Your task to perform on an android device: Open calendar and show me the fourth week of next month Image 0: 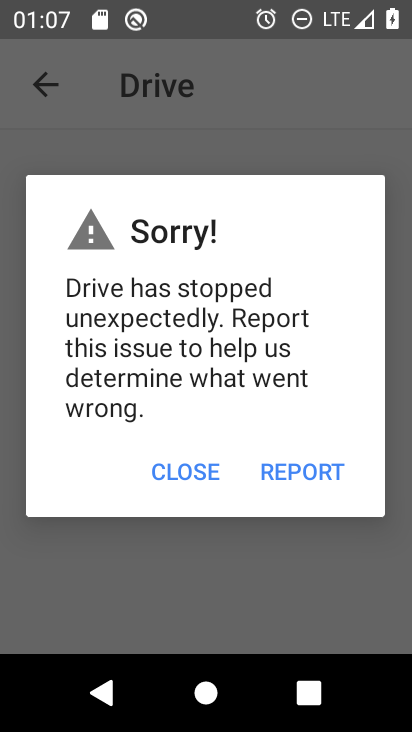
Step 0: press home button
Your task to perform on an android device: Open calendar and show me the fourth week of next month Image 1: 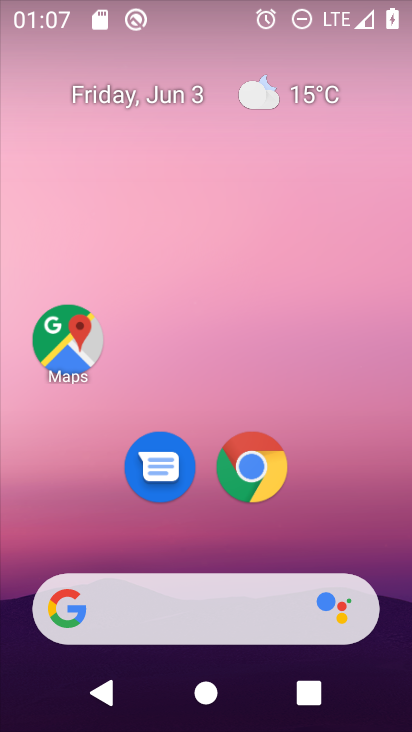
Step 1: drag from (398, 612) to (328, 40)
Your task to perform on an android device: Open calendar and show me the fourth week of next month Image 2: 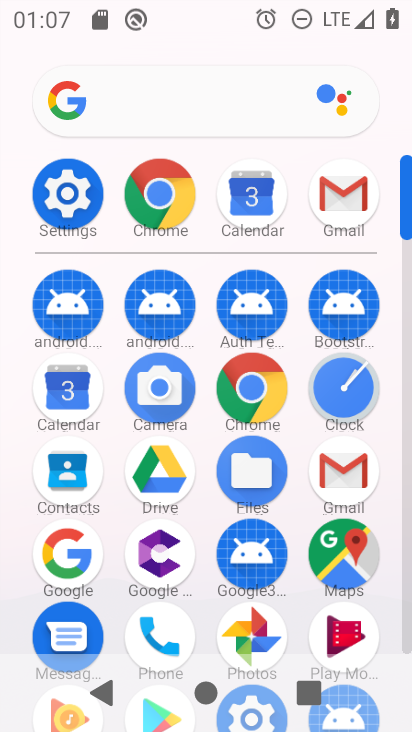
Step 2: click (404, 627)
Your task to perform on an android device: Open calendar and show me the fourth week of next month Image 3: 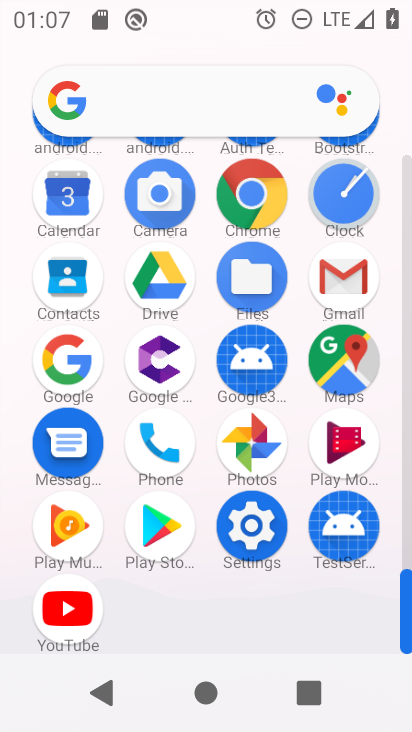
Step 3: click (67, 197)
Your task to perform on an android device: Open calendar and show me the fourth week of next month Image 4: 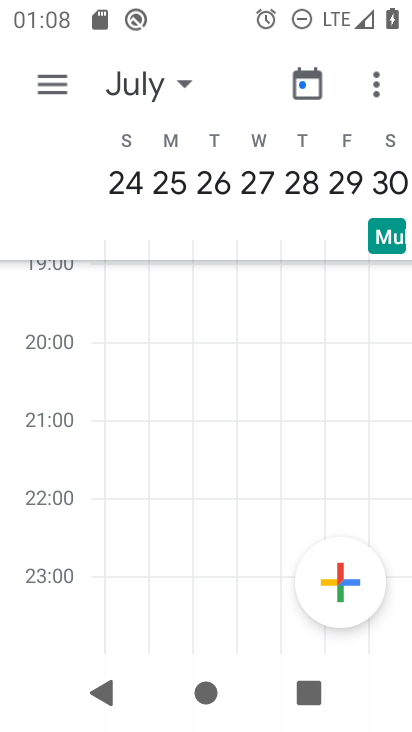
Step 4: click (187, 84)
Your task to perform on an android device: Open calendar and show me the fourth week of next month Image 5: 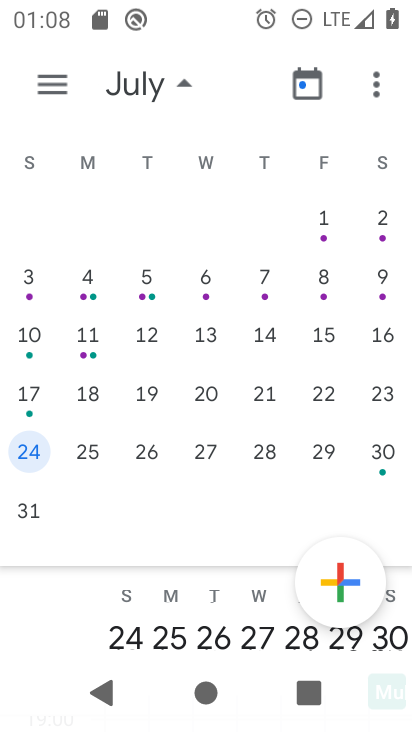
Step 5: task complete